Your task to perform on an android device: Search for sushi restaurants on Maps Image 0: 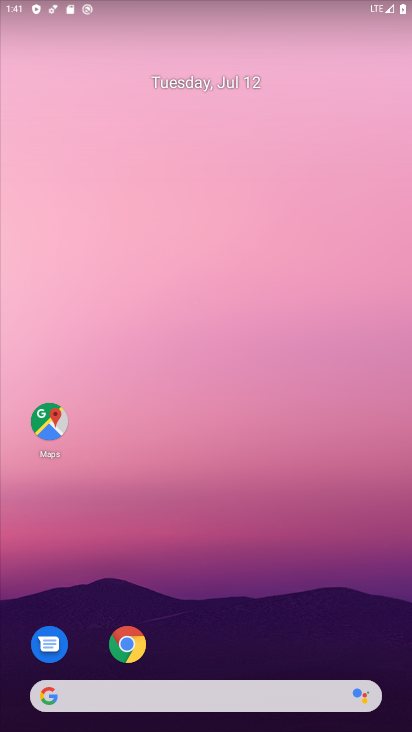
Step 0: click (36, 437)
Your task to perform on an android device: Search for sushi restaurants on Maps Image 1: 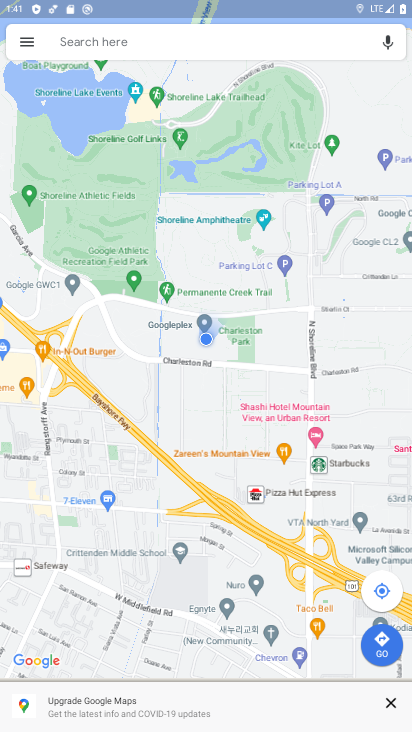
Step 1: click (234, 35)
Your task to perform on an android device: Search for sushi restaurants on Maps Image 2: 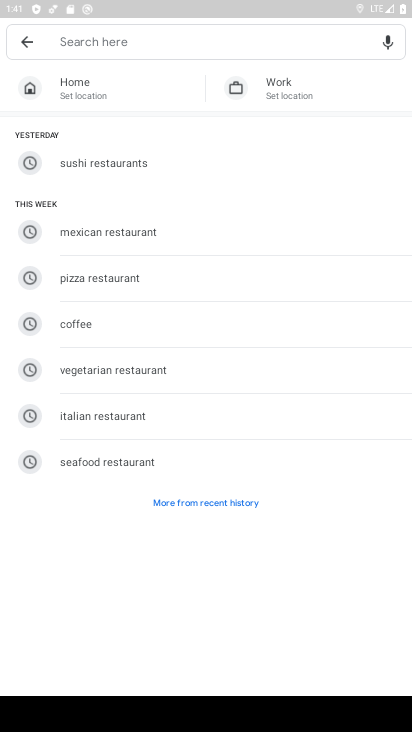
Step 2: click (122, 161)
Your task to perform on an android device: Search for sushi restaurants on Maps Image 3: 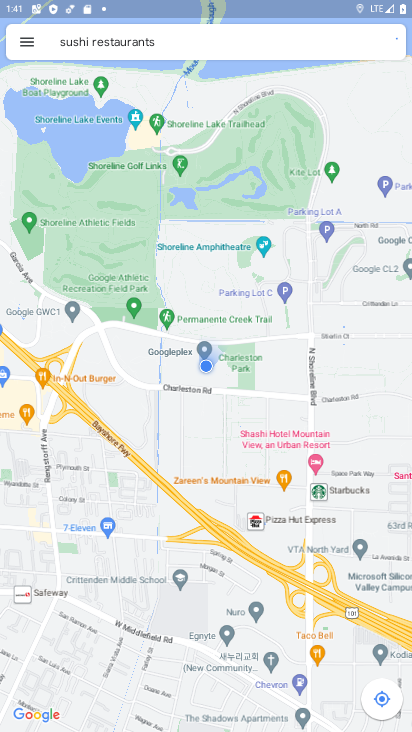
Step 3: task complete